Your task to perform on an android device: Search for Mexican restaurants on Maps Image 0: 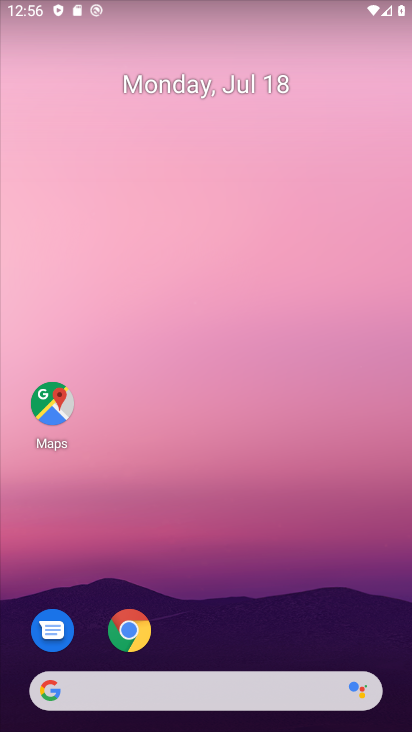
Step 0: click (52, 417)
Your task to perform on an android device: Search for Mexican restaurants on Maps Image 1: 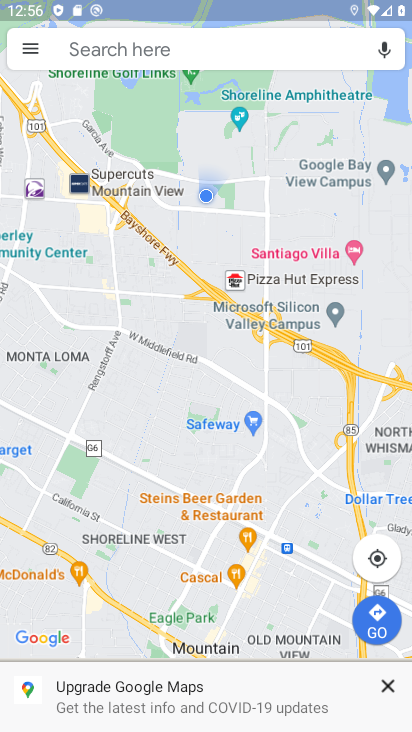
Step 1: click (172, 44)
Your task to perform on an android device: Search for Mexican restaurants on Maps Image 2: 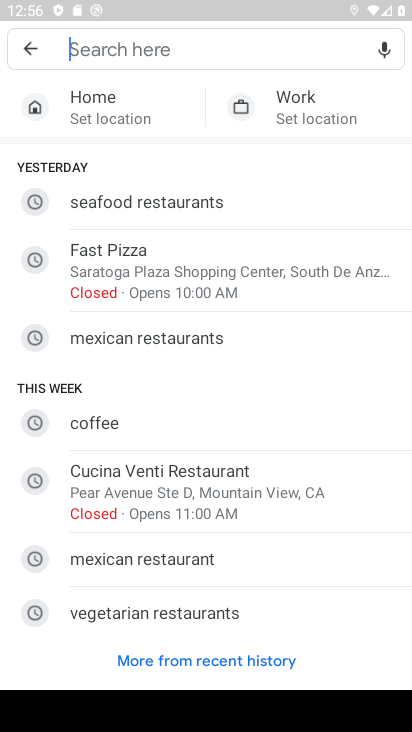
Step 2: click (164, 560)
Your task to perform on an android device: Search for Mexican restaurants on Maps Image 3: 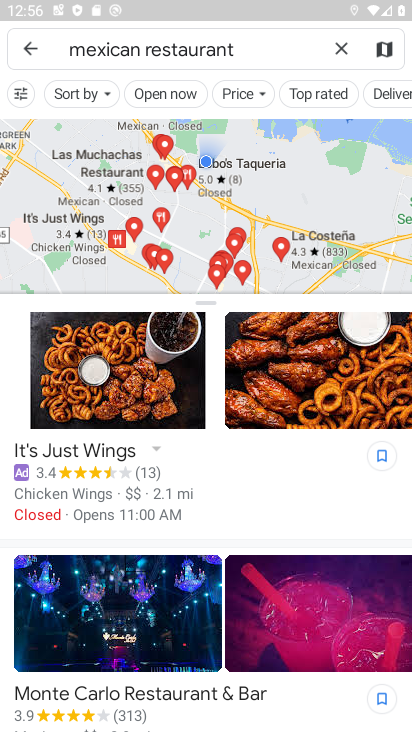
Step 3: task complete